Your task to perform on an android device: turn on notifications settings in the gmail app Image 0: 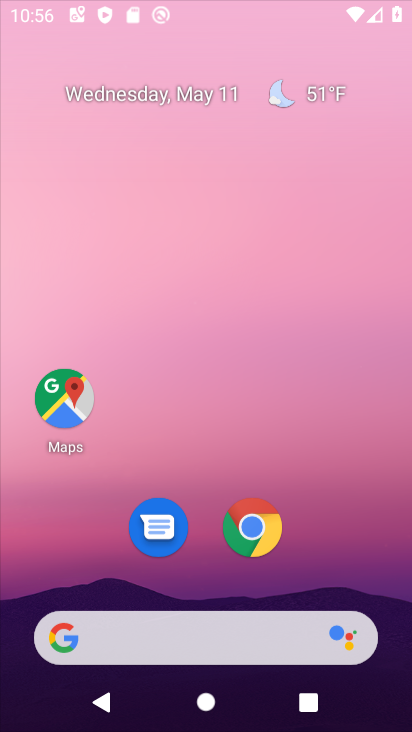
Step 0: click (394, 132)
Your task to perform on an android device: turn on notifications settings in the gmail app Image 1: 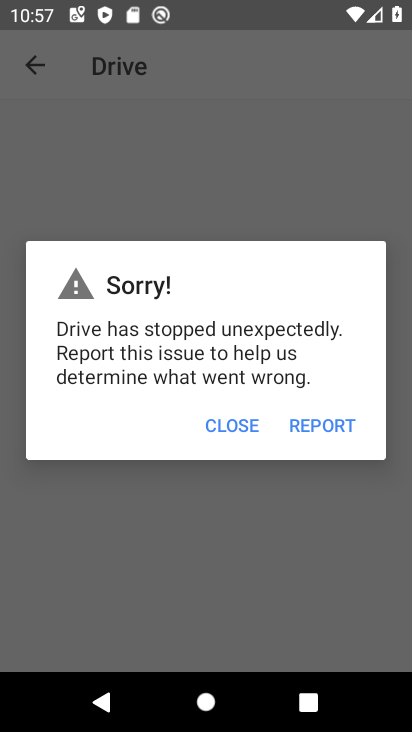
Step 1: press home button
Your task to perform on an android device: turn on notifications settings in the gmail app Image 2: 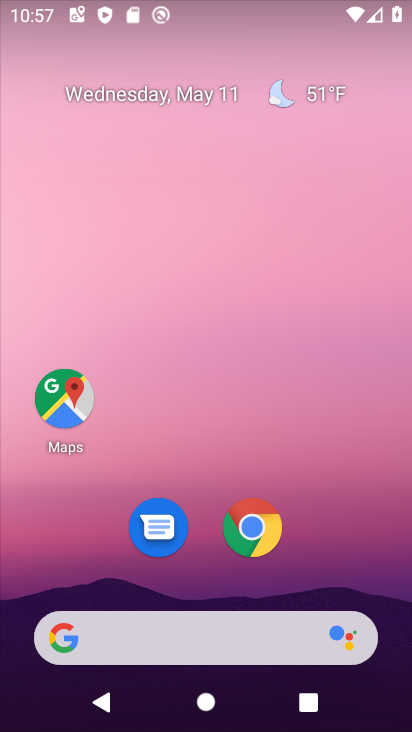
Step 2: drag from (324, 568) to (333, 160)
Your task to perform on an android device: turn on notifications settings in the gmail app Image 3: 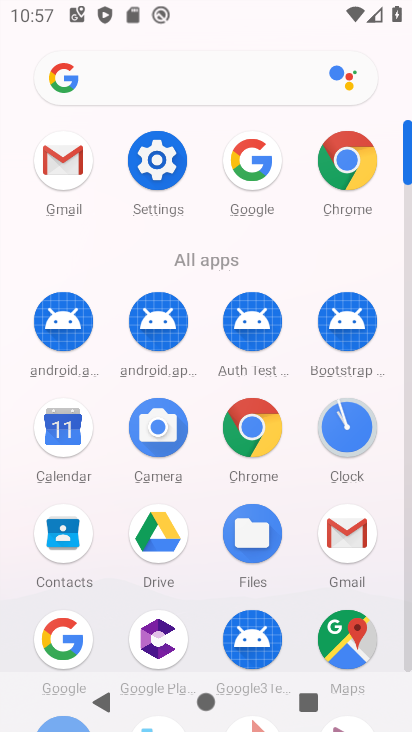
Step 3: click (347, 528)
Your task to perform on an android device: turn on notifications settings in the gmail app Image 4: 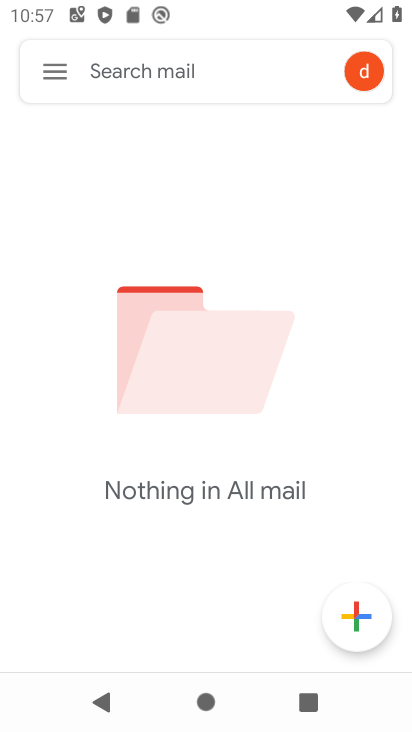
Step 4: click (49, 68)
Your task to perform on an android device: turn on notifications settings in the gmail app Image 5: 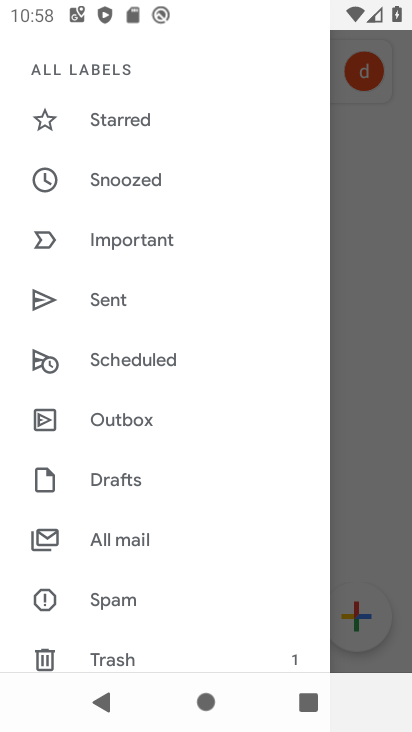
Step 5: drag from (112, 634) to (188, 361)
Your task to perform on an android device: turn on notifications settings in the gmail app Image 6: 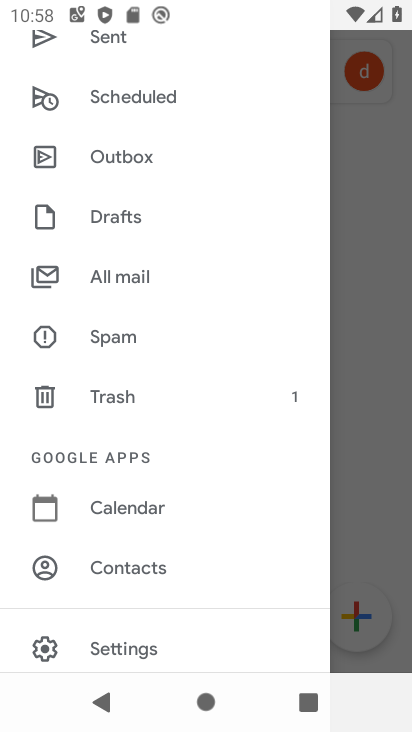
Step 6: click (138, 645)
Your task to perform on an android device: turn on notifications settings in the gmail app Image 7: 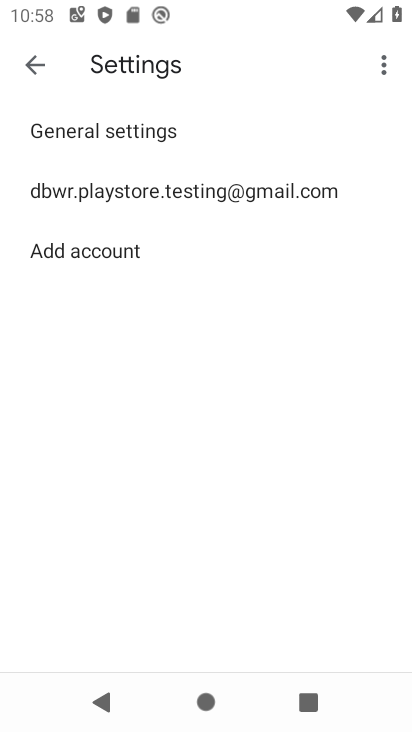
Step 7: click (246, 193)
Your task to perform on an android device: turn on notifications settings in the gmail app Image 8: 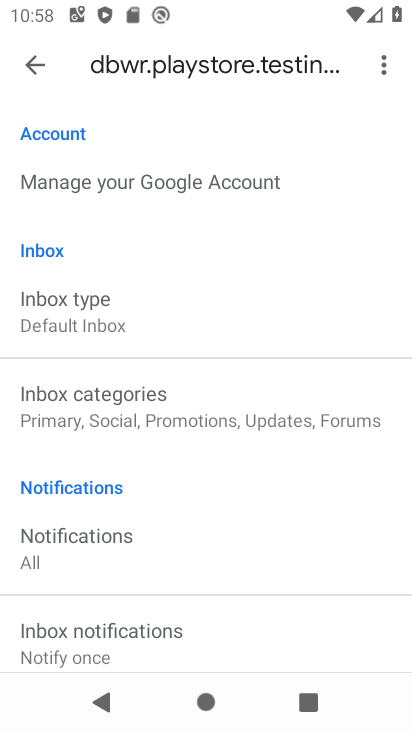
Step 8: click (80, 545)
Your task to perform on an android device: turn on notifications settings in the gmail app Image 9: 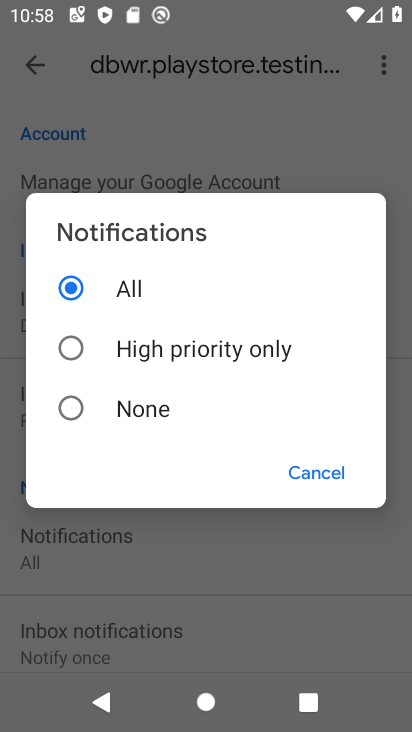
Step 9: click (329, 469)
Your task to perform on an android device: turn on notifications settings in the gmail app Image 10: 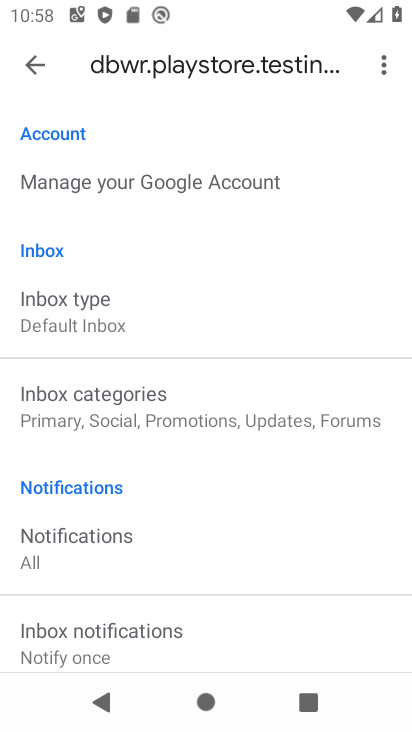
Step 10: drag from (167, 453) to (228, 160)
Your task to perform on an android device: turn on notifications settings in the gmail app Image 11: 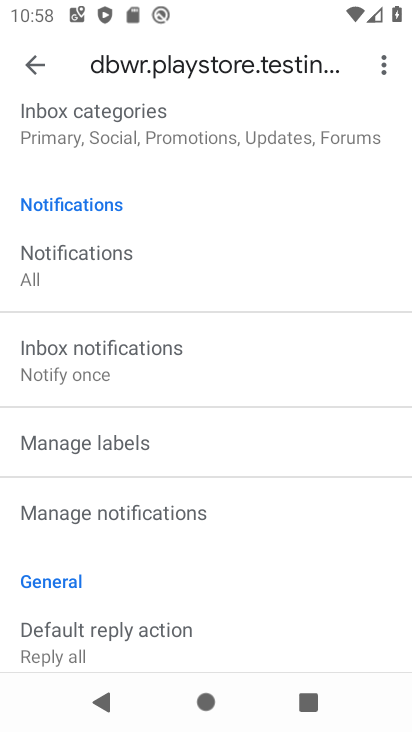
Step 11: click (139, 512)
Your task to perform on an android device: turn on notifications settings in the gmail app Image 12: 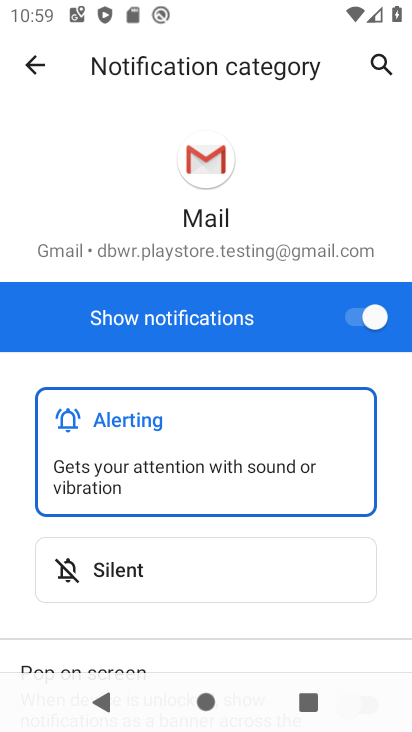
Step 12: task complete